Your task to perform on an android device: check the backup settings in the google photos Image 0: 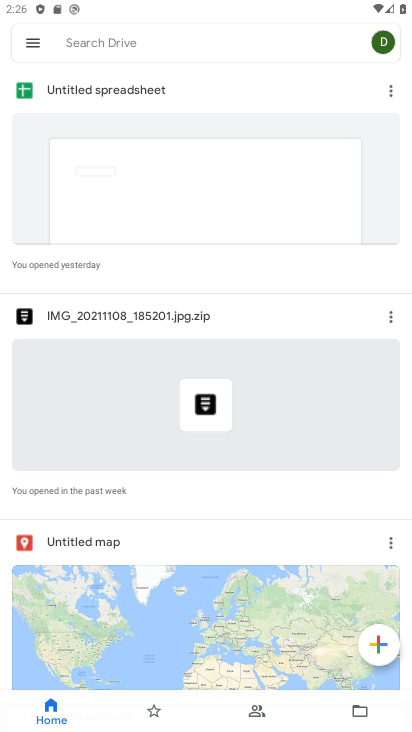
Step 0: drag from (248, 607) to (260, 544)
Your task to perform on an android device: check the backup settings in the google photos Image 1: 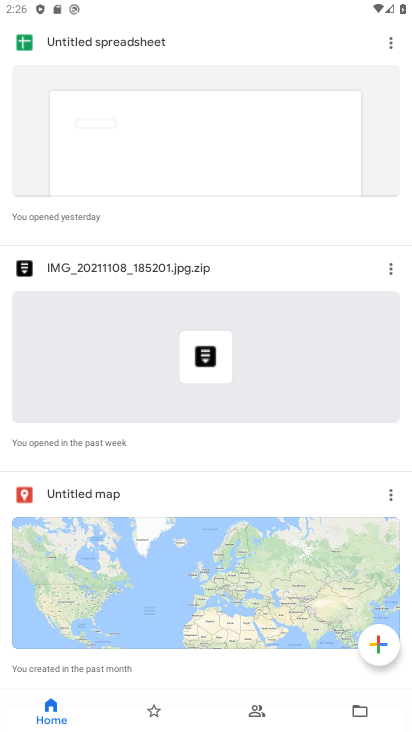
Step 1: press home button
Your task to perform on an android device: check the backup settings in the google photos Image 2: 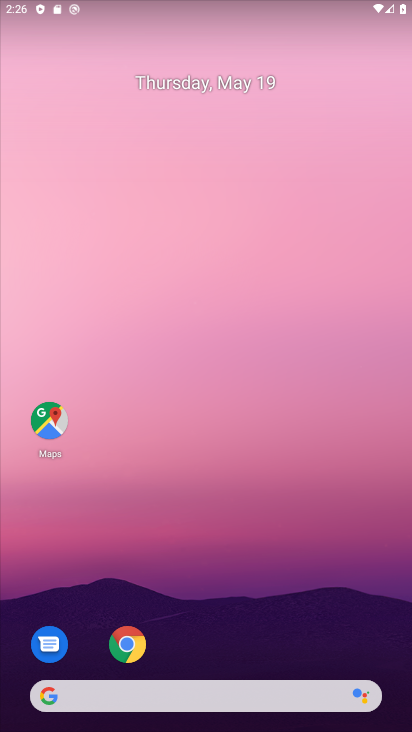
Step 2: drag from (180, 549) to (201, 381)
Your task to perform on an android device: check the backup settings in the google photos Image 3: 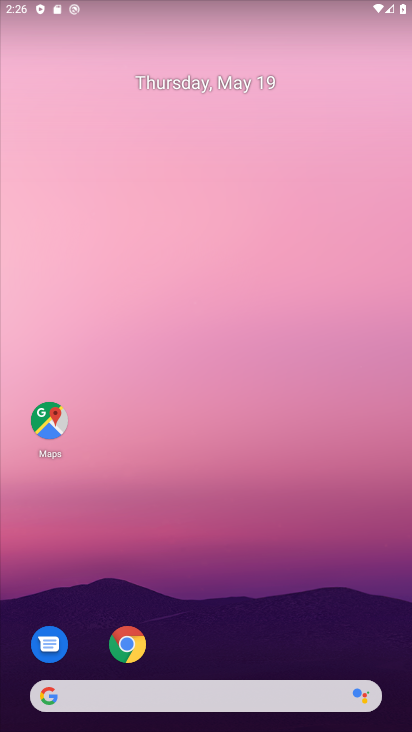
Step 3: drag from (177, 603) to (251, 319)
Your task to perform on an android device: check the backup settings in the google photos Image 4: 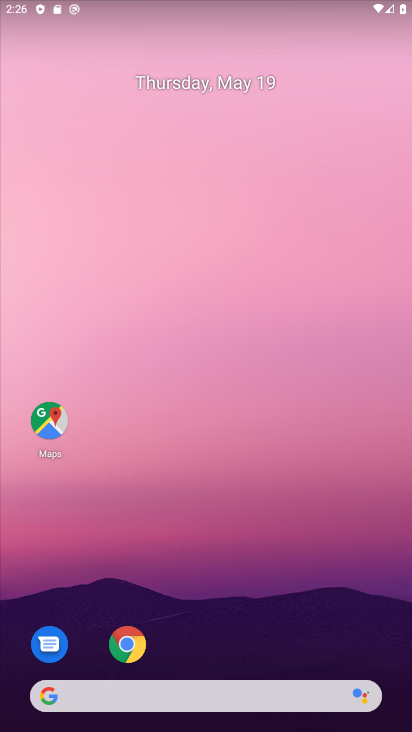
Step 4: drag from (223, 462) to (277, 124)
Your task to perform on an android device: check the backup settings in the google photos Image 5: 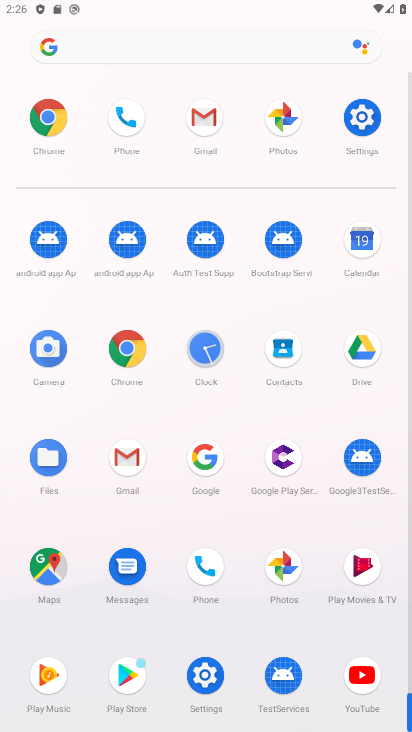
Step 5: click (279, 561)
Your task to perform on an android device: check the backup settings in the google photos Image 6: 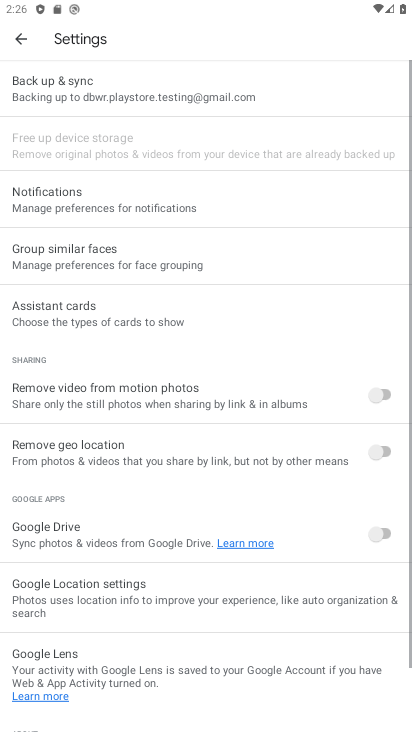
Step 6: click (45, 93)
Your task to perform on an android device: check the backup settings in the google photos Image 7: 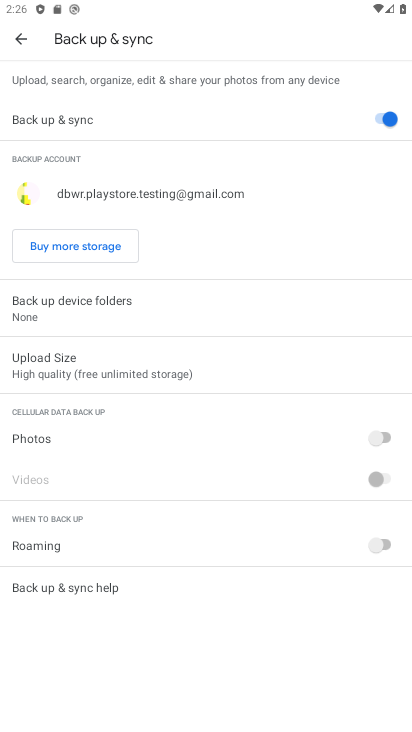
Step 7: task complete